Your task to perform on an android device: toggle translation in the chrome app Image 0: 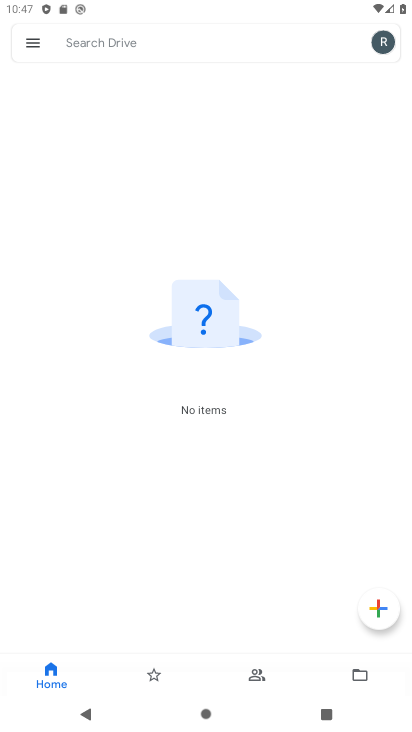
Step 0: press home button
Your task to perform on an android device: toggle translation in the chrome app Image 1: 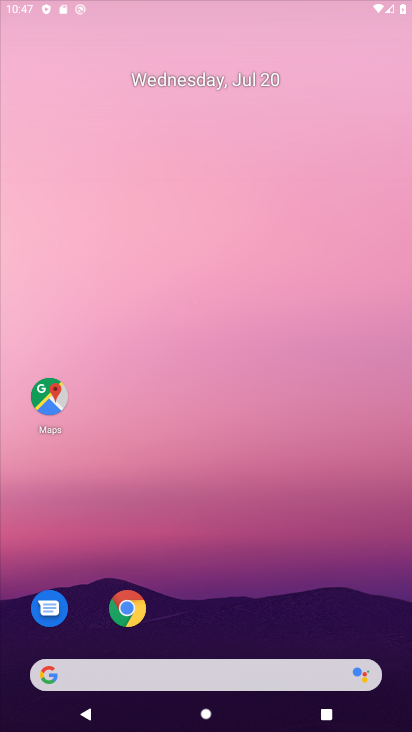
Step 1: drag from (361, 616) to (229, 107)
Your task to perform on an android device: toggle translation in the chrome app Image 2: 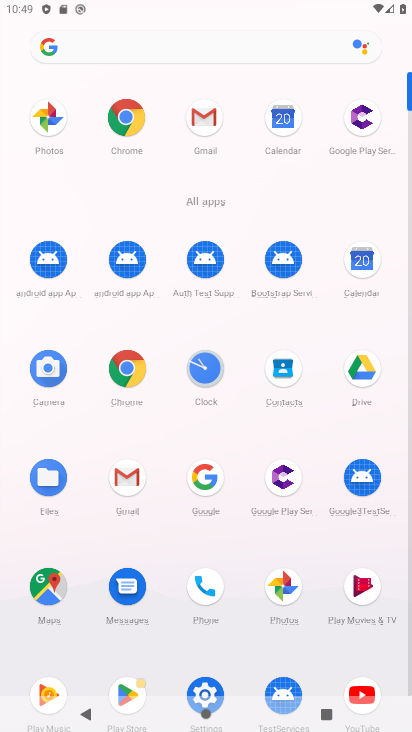
Step 2: click (120, 126)
Your task to perform on an android device: toggle translation in the chrome app Image 3: 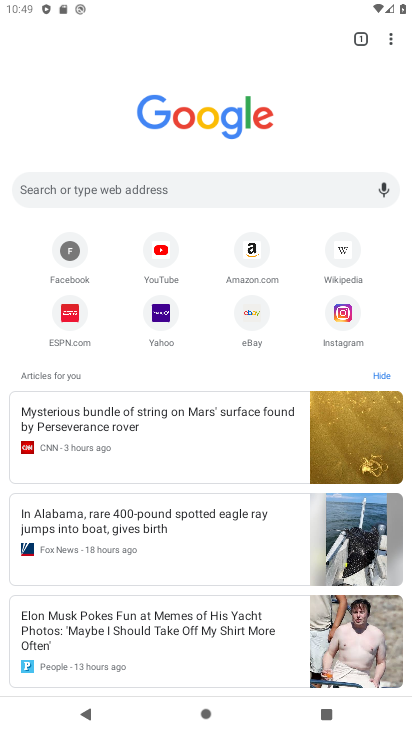
Step 3: click (395, 35)
Your task to perform on an android device: toggle translation in the chrome app Image 4: 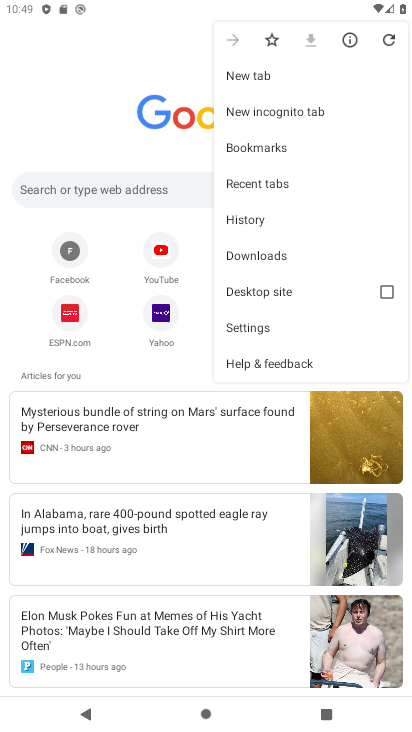
Step 4: click (264, 331)
Your task to perform on an android device: toggle translation in the chrome app Image 5: 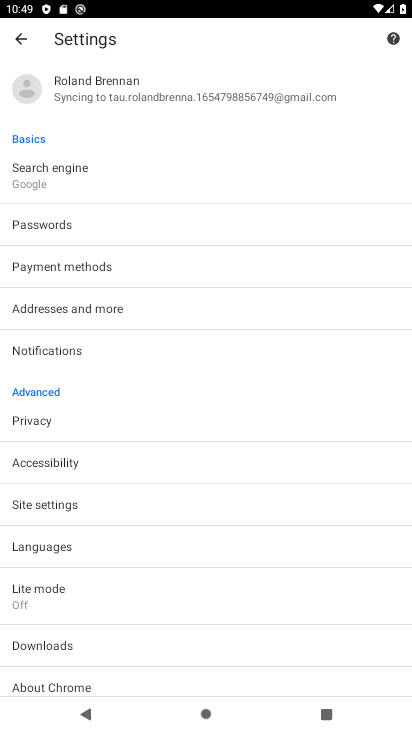
Step 5: click (76, 548)
Your task to perform on an android device: toggle translation in the chrome app Image 6: 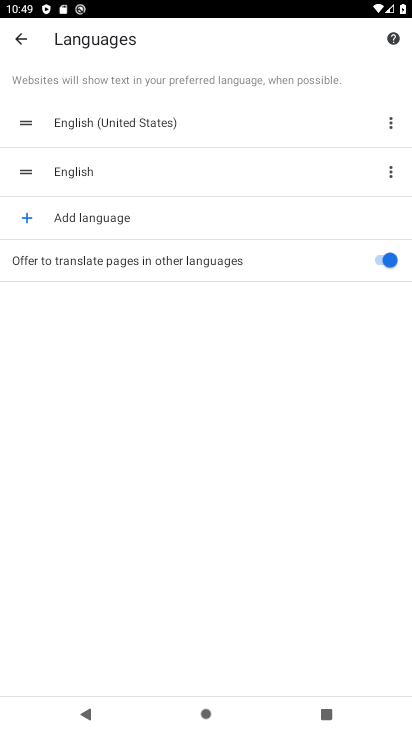
Step 6: click (359, 269)
Your task to perform on an android device: toggle translation in the chrome app Image 7: 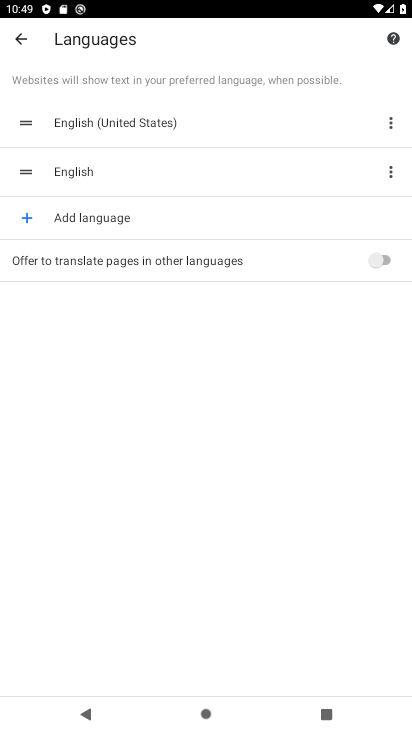
Step 7: task complete